Your task to perform on an android device: Open Wikipedia Image 0: 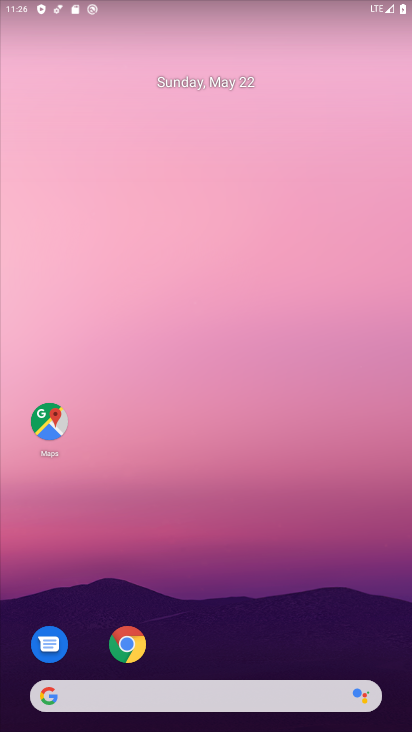
Step 0: click (137, 655)
Your task to perform on an android device: Open Wikipedia Image 1: 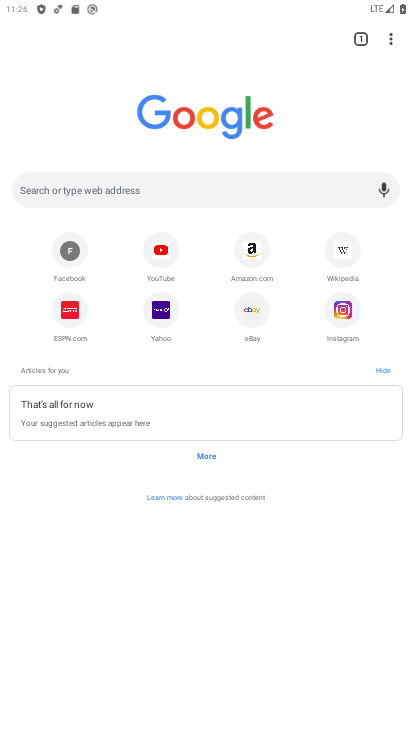
Step 1: click (347, 248)
Your task to perform on an android device: Open Wikipedia Image 2: 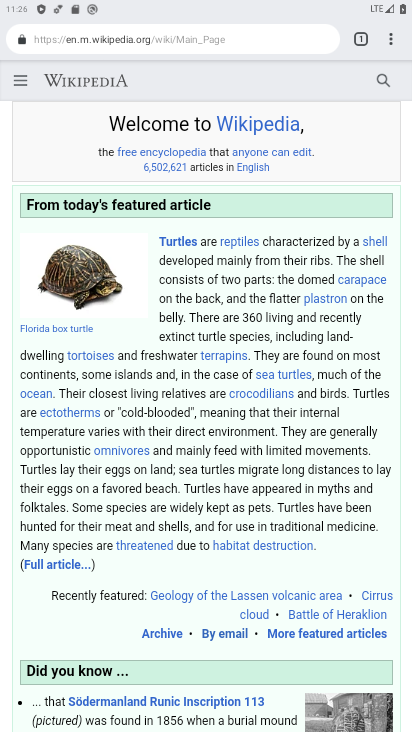
Step 2: task complete